Your task to perform on an android device: Open Maps and search for coffee Image 0: 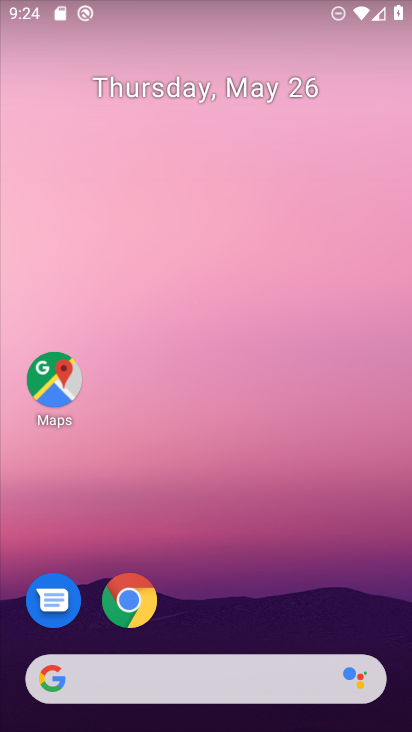
Step 0: click (67, 378)
Your task to perform on an android device: Open Maps and search for coffee Image 1: 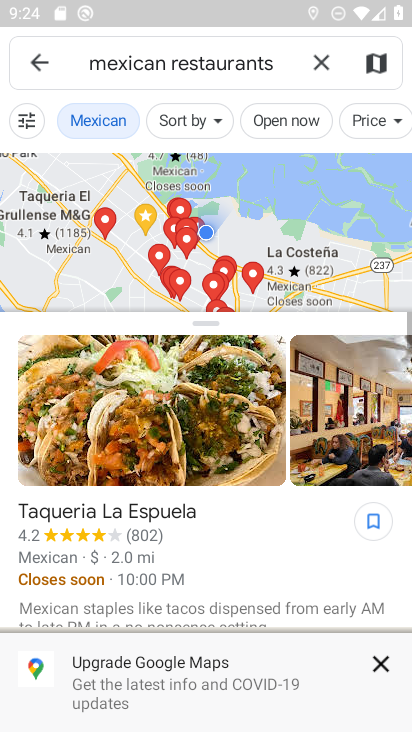
Step 1: click (327, 63)
Your task to perform on an android device: Open Maps and search for coffee Image 2: 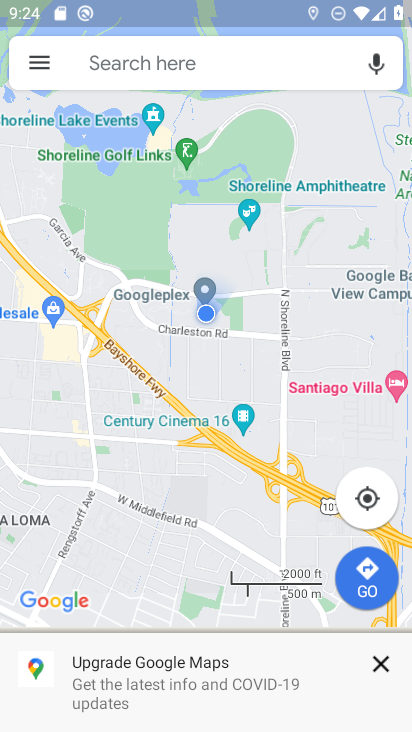
Step 2: click (242, 61)
Your task to perform on an android device: Open Maps and search for coffee Image 3: 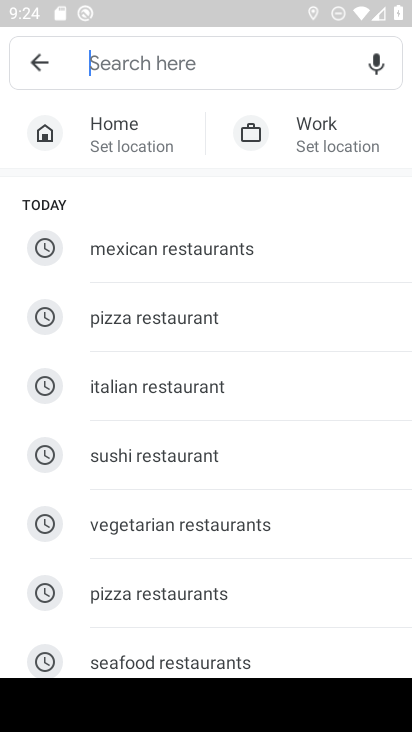
Step 3: drag from (172, 648) to (172, 197)
Your task to perform on an android device: Open Maps and search for coffee Image 4: 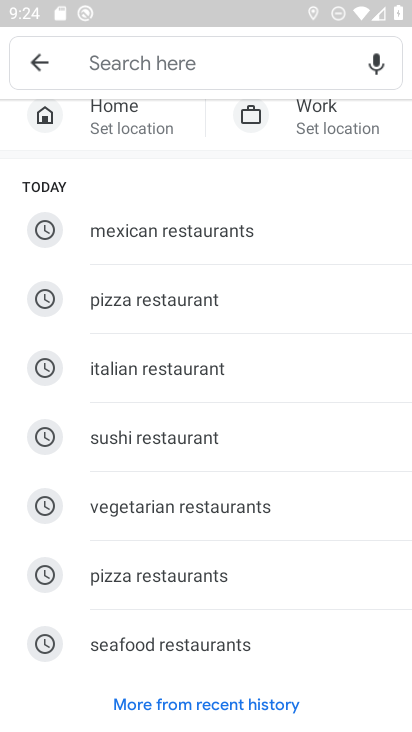
Step 4: type "coffee"
Your task to perform on an android device: Open Maps and search for coffee Image 5: 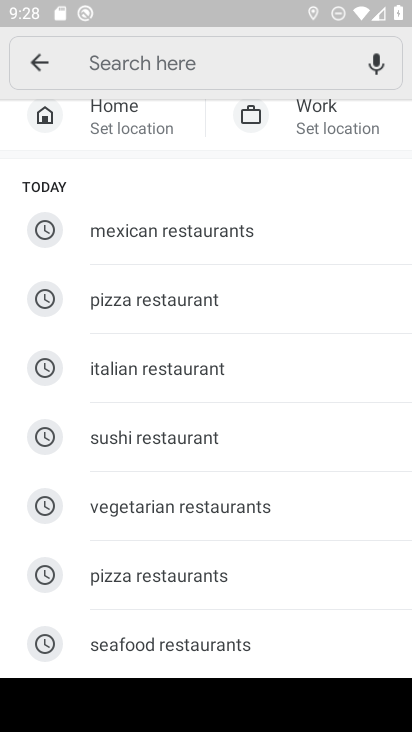
Step 5: type "coffee"
Your task to perform on an android device: Open Maps and search for coffee Image 6: 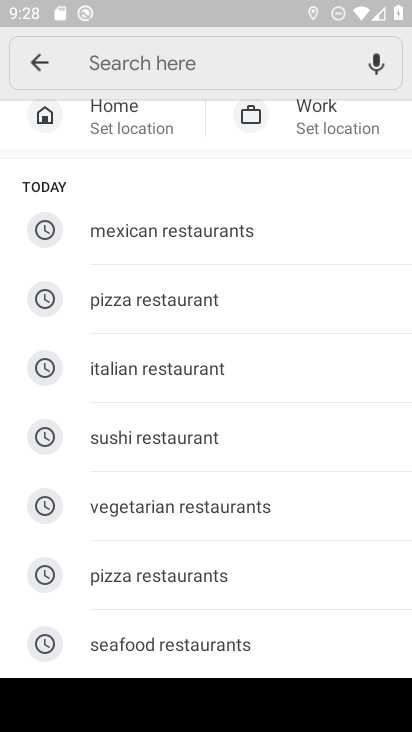
Step 6: click (147, 66)
Your task to perform on an android device: Open Maps and search for coffee Image 7: 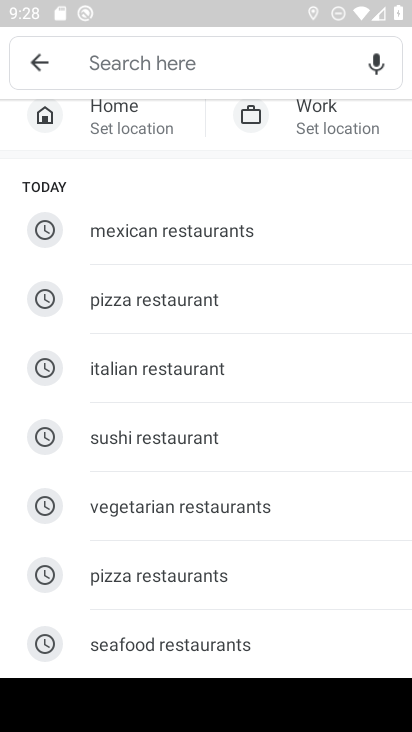
Step 7: type "coffee"
Your task to perform on an android device: Open Maps and search for coffee Image 8: 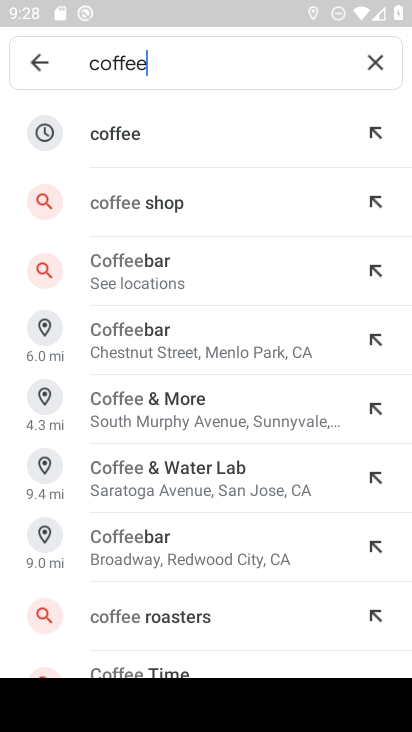
Step 8: click (179, 130)
Your task to perform on an android device: Open Maps and search for coffee Image 9: 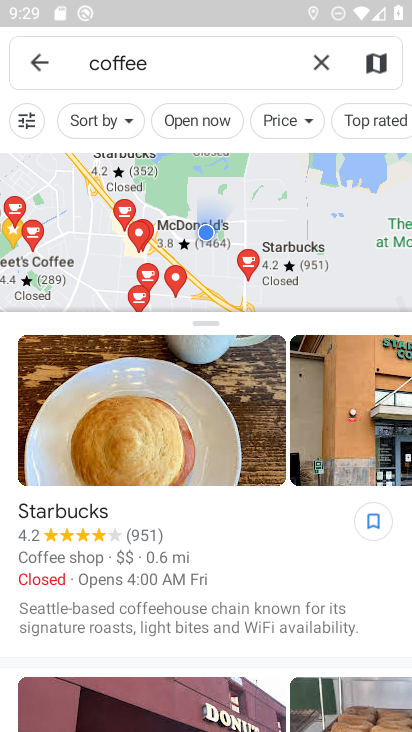
Step 9: task complete